Your task to perform on an android device: turn pop-ups off in chrome Image 0: 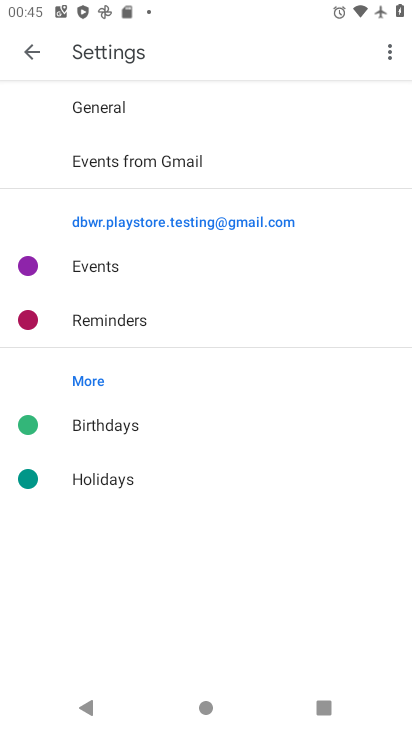
Step 0: press home button
Your task to perform on an android device: turn pop-ups off in chrome Image 1: 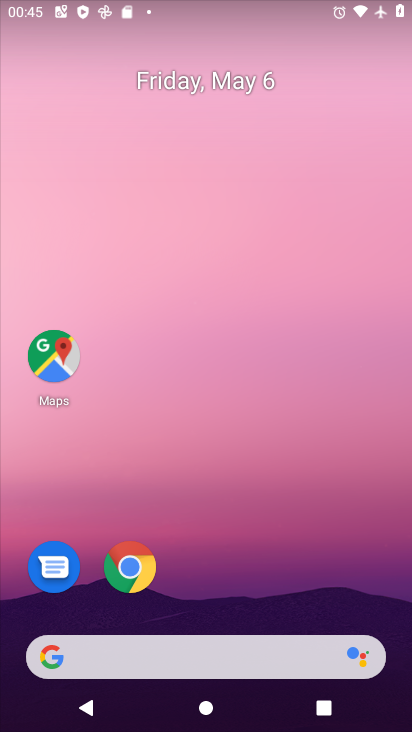
Step 1: click (111, 558)
Your task to perform on an android device: turn pop-ups off in chrome Image 2: 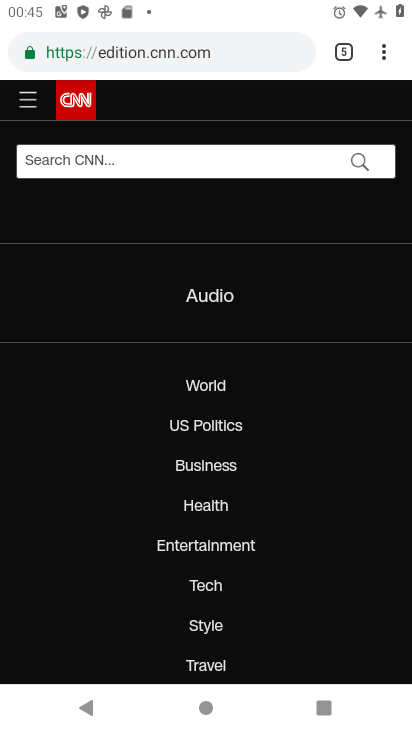
Step 2: click (388, 50)
Your task to perform on an android device: turn pop-ups off in chrome Image 3: 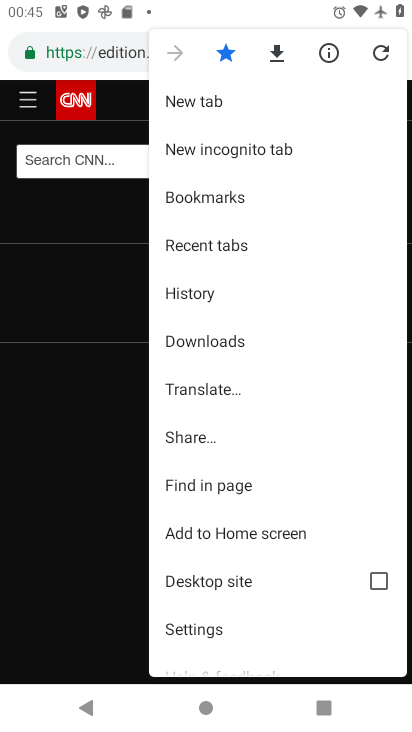
Step 3: click (218, 630)
Your task to perform on an android device: turn pop-ups off in chrome Image 4: 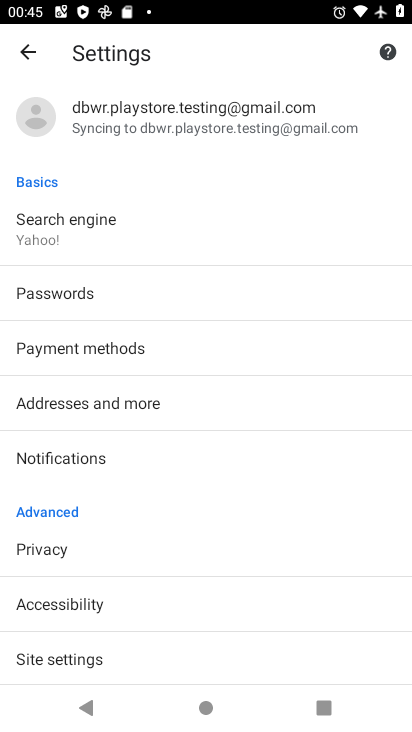
Step 4: drag from (153, 625) to (180, 380)
Your task to perform on an android device: turn pop-ups off in chrome Image 5: 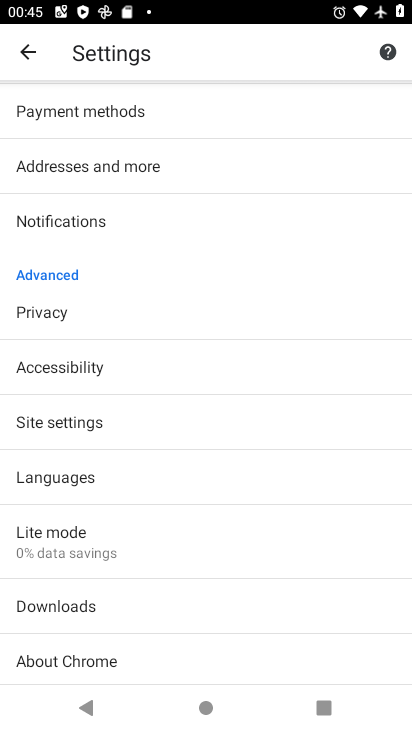
Step 5: drag from (183, 551) to (221, 292)
Your task to perform on an android device: turn pop-ups off in chrome Image 6: 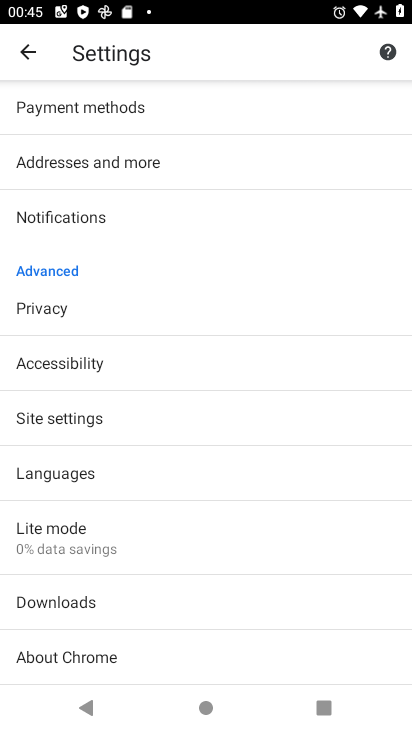
Step 6: click (87, 422)
Your task to perform on an android device: turn pop-ups off in chrome Image 7: 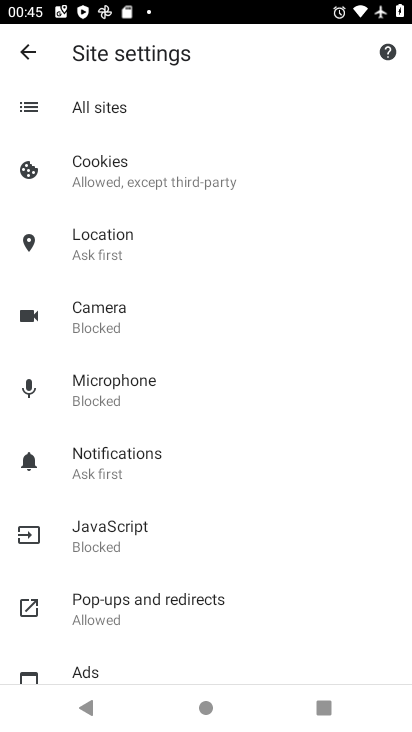
Step 7: drag from (241, 559) to (245, 387)
Your task to perform on an android device: turn pop-ups off in chrome Image 8: 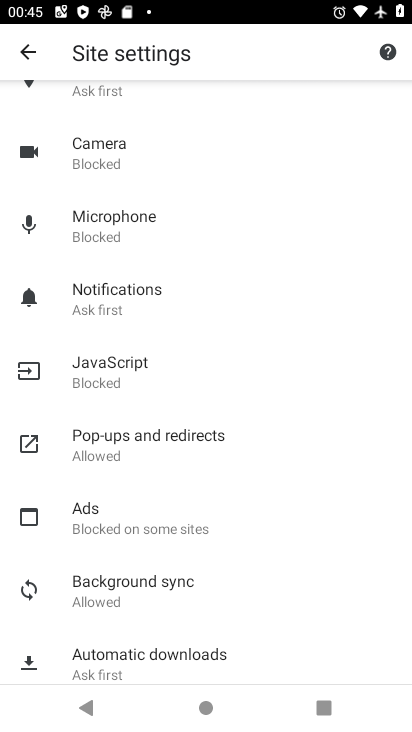
Step 8: click (184, 430)
Your task to perform on an android device: turn pop-ups off in chrome Image 9: 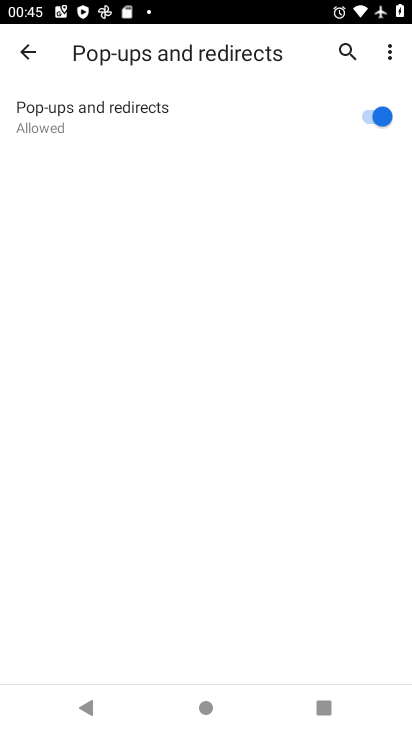
Step 9: click (367, 119)
Your task to perform on an android device: turn pop-ups off in chrome Image 10: 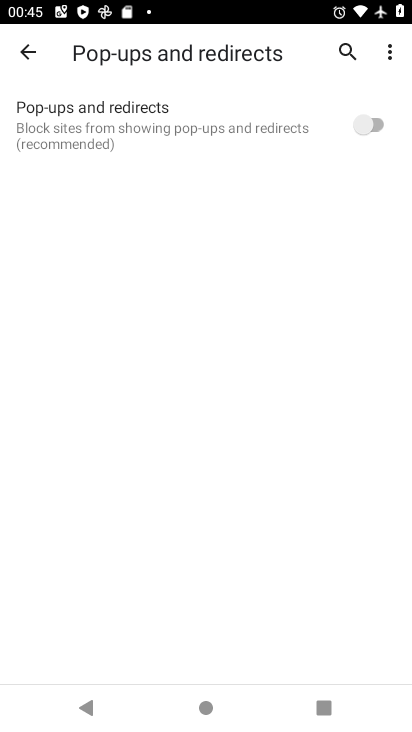
Step 10: task complete